Your task to perform on an android device: Go to Yahoo.com Image 0: 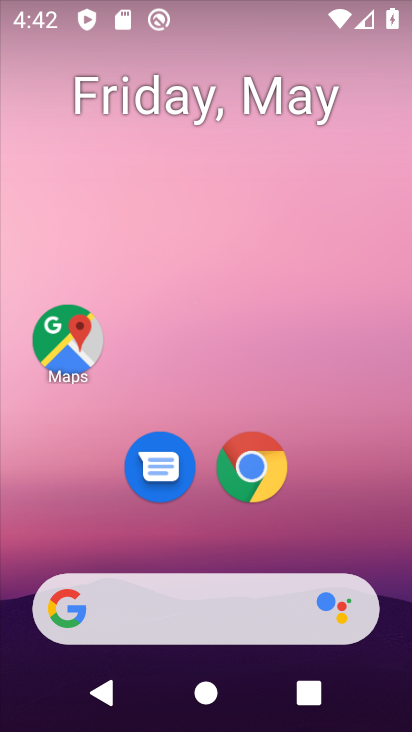
Step 0: click (251, 473)
Your task to perform on an android device: Go to Yahoo.com Image 1: 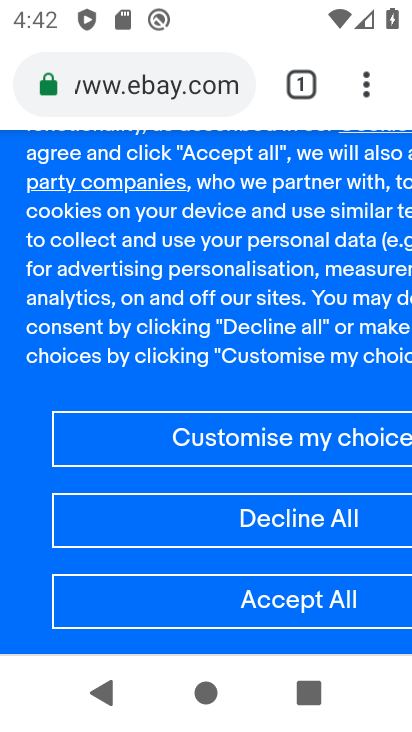
Step 1: click (162, 83)
Your task to perform on an android device: Go to Yahoo.com Image 2: 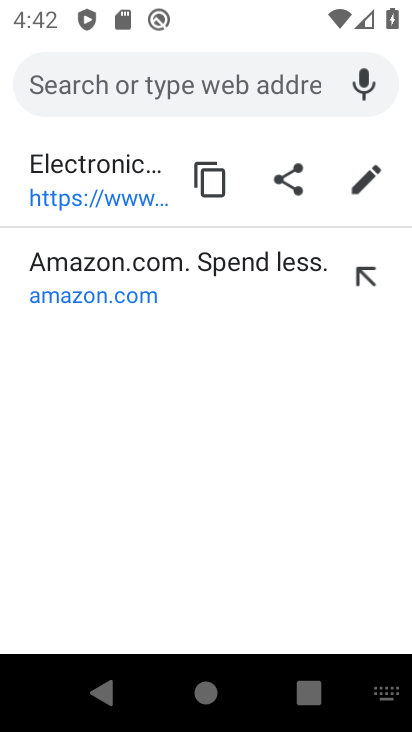
Step 2: type "yahoo.com"
Your task to perform on an android device: Go to Yahoo.com Image 3: 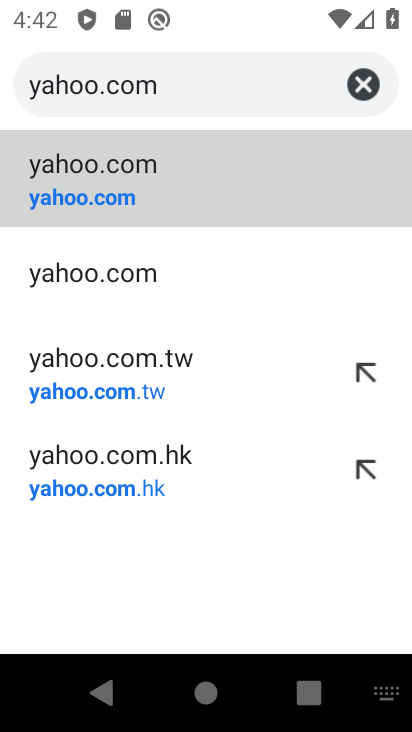
Step 3: click (51, 197)
Your task to perform on an android device: Go to Yahoo.com Image 4: 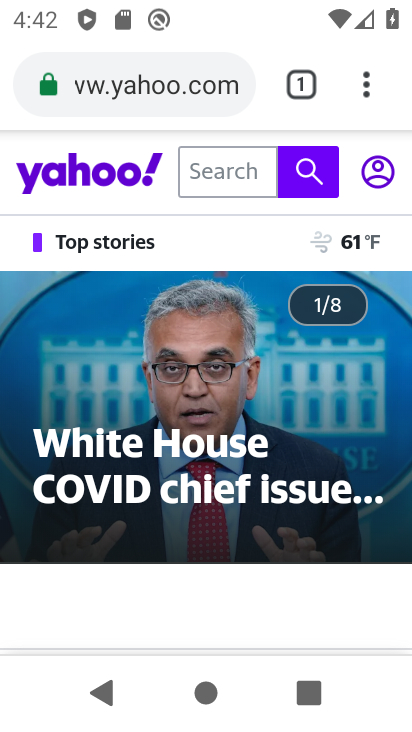
Step 4: task complete